Your task to perform on an android device: change the clock display to analog Image 0: 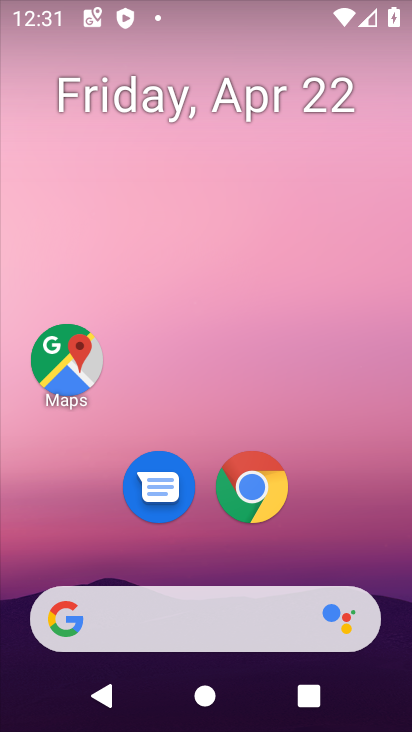
Step 0: drag from (221, 561) to (221, 170)
Your task to perform on an android device: change the clock display to analog Image 1: 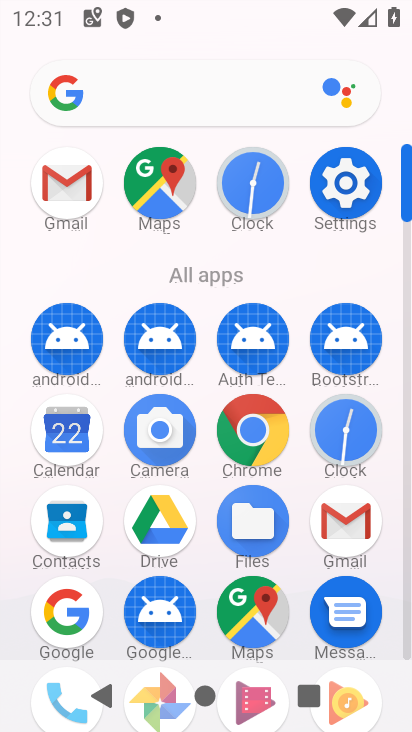
Step 1: click (251, 201)
Your task to perform on an android device: change the clock display to analog Image 2: 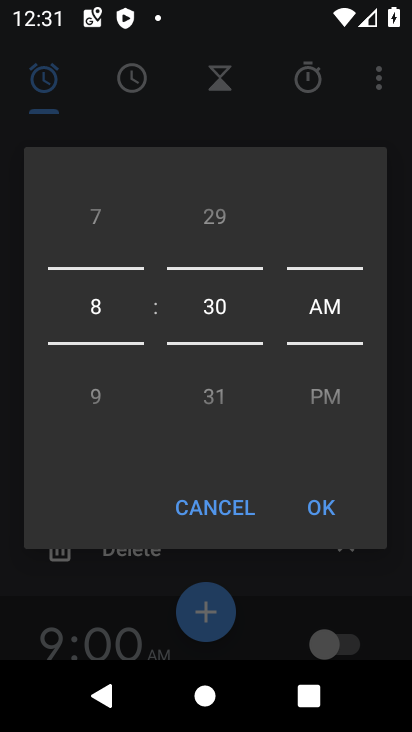
Step 2: click (219, 500)
Your task to perform on an android device: change the clock display to analog Image 3: 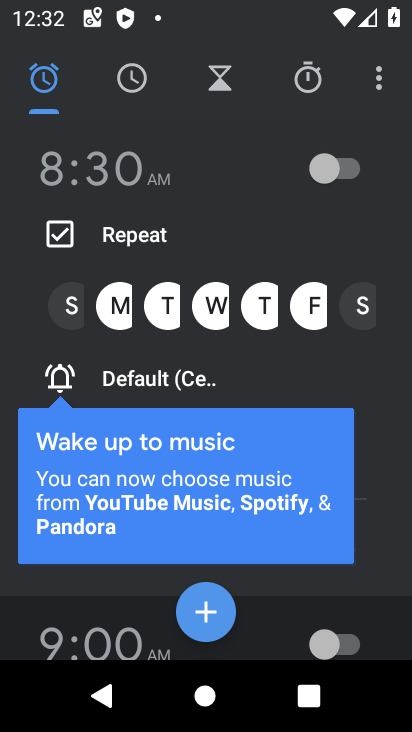
Step 3: click (376, 85)
Your task to perform on an android device: change the clock display to analog Image 4: 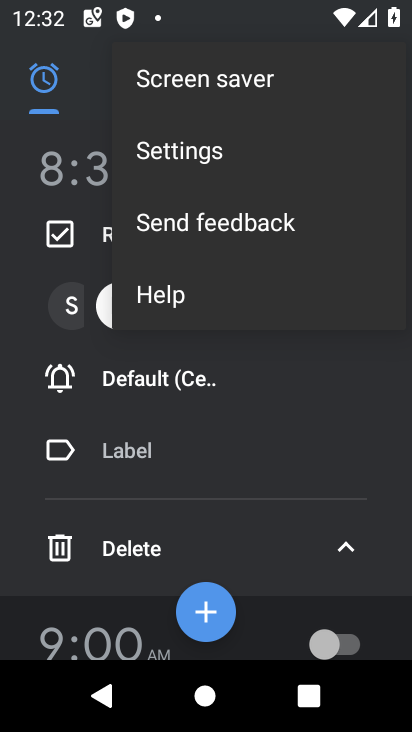
Step 4: click (218, 152)
Your task to perform on an android device: change the clock display to analog Image 5: 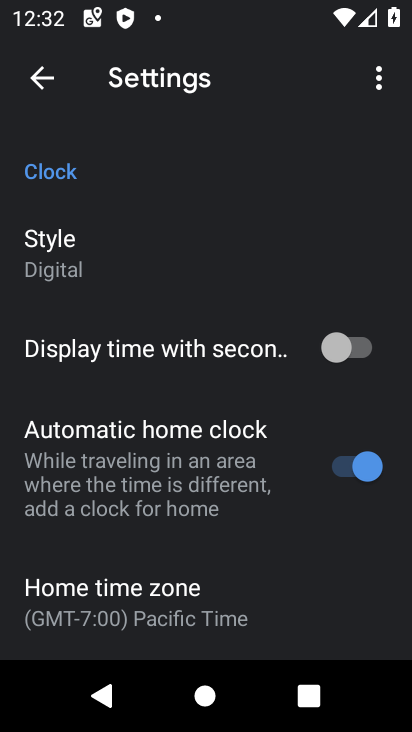
Step 5: click (96, 255)
Your task to perform on an android device: change the clock display to analog Image 6: 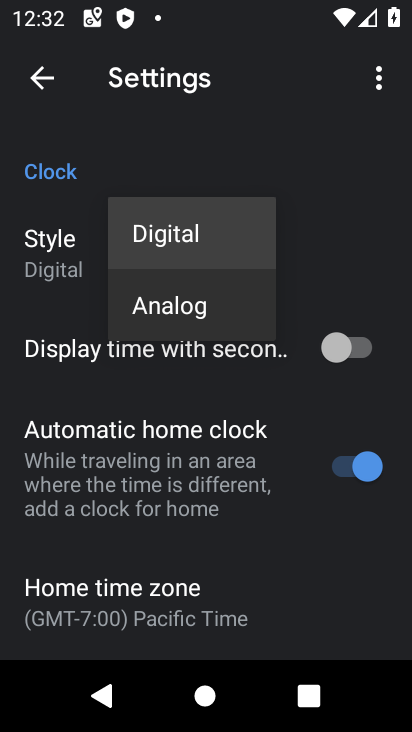
Step 6: click (141, 296)
Your task to perform on an android device: change the clock display to analog Image 7: 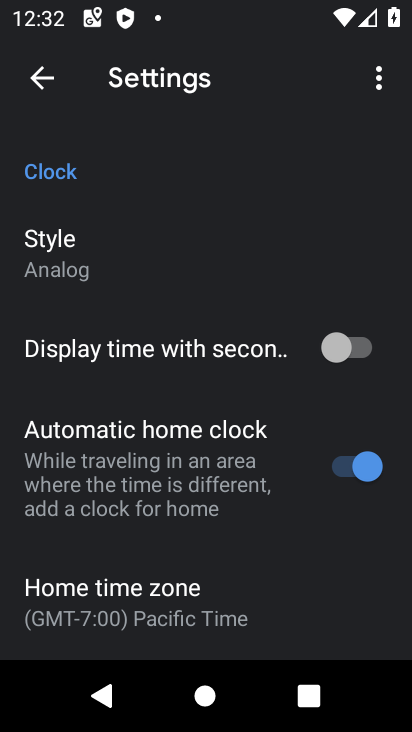
Step 7: task complete